Your task to perform on an android device: Go to Amazon Image 0: 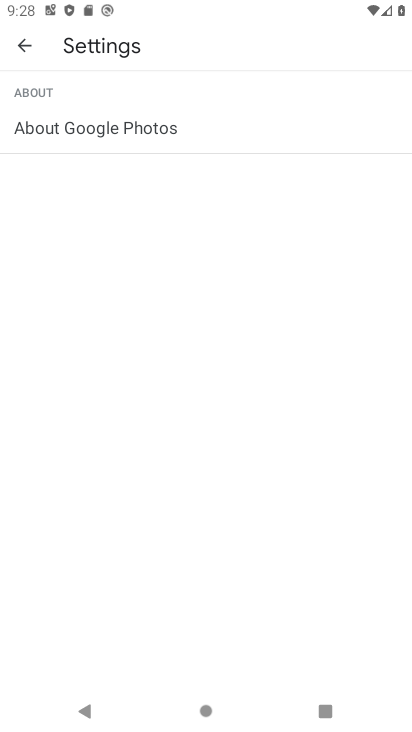
Step 0: press home button
Your task to perform on an android device: Go to Amazon Image 1: 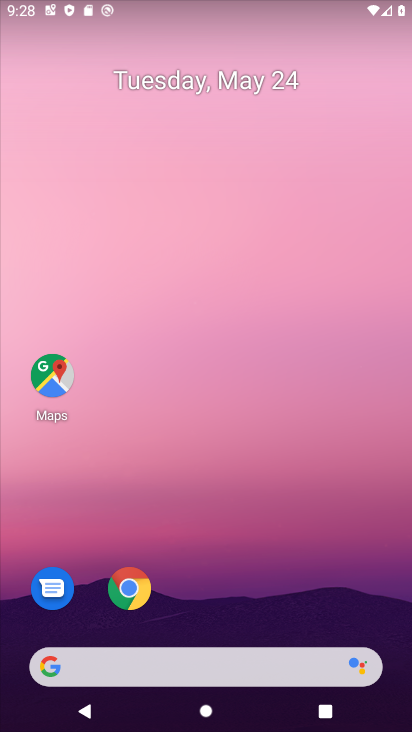
Step 1: click (136, 582)
Your task to perform on an android device: Go to Amazon Image 2: 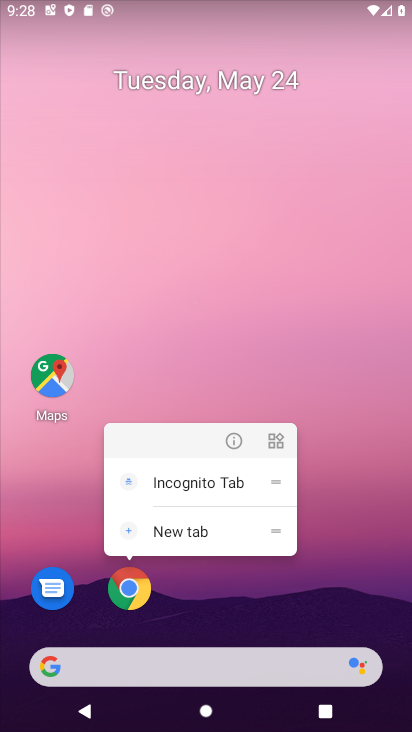
Step 2: click (115, 582)
Your task to perform on an android device: Go to Amazon Image 3: 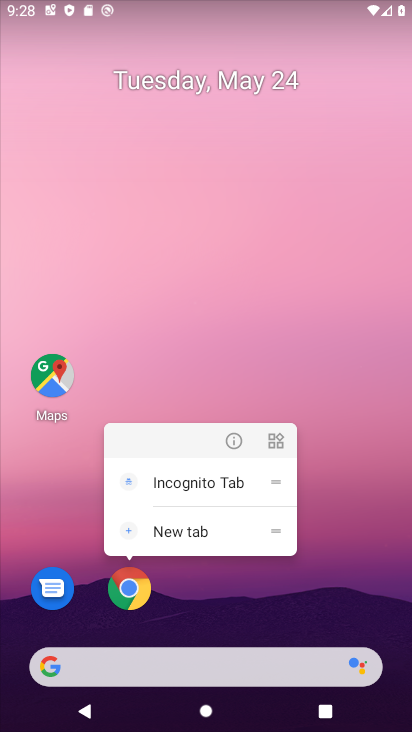
Step 3: click (126, 584)
Your task to perform on an android device: Go to Amazon Image 4: 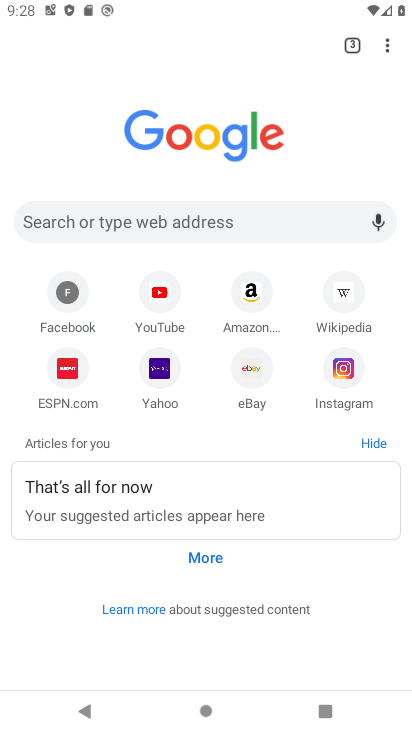
Step 4: click (269, 292)
Your task to perform on an android device: Go to Amazon Image 5: 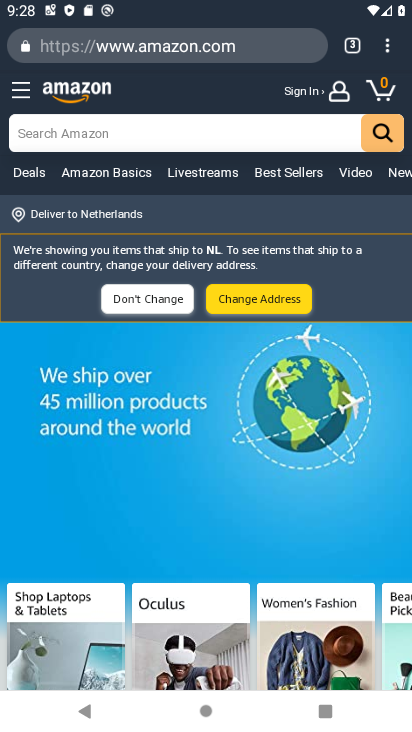
Step 5: task complete